Your task to perform on an android device: allow notifications from all sites in the chrome app Image 0: 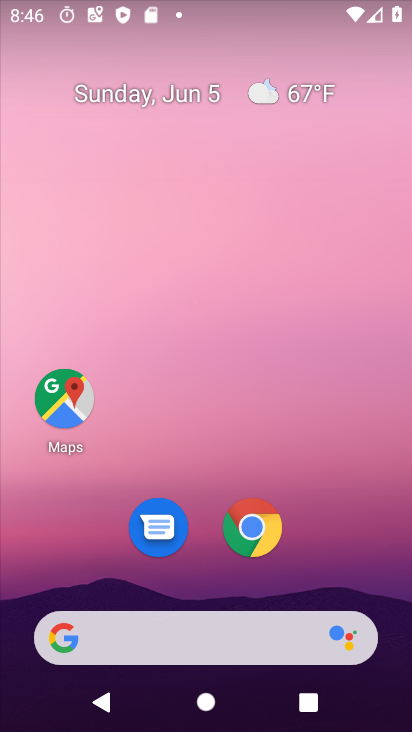
Step 0: click (258, 528)
Your task to perform on an android device: allow notifications from all sites in the chrome app Image 1: 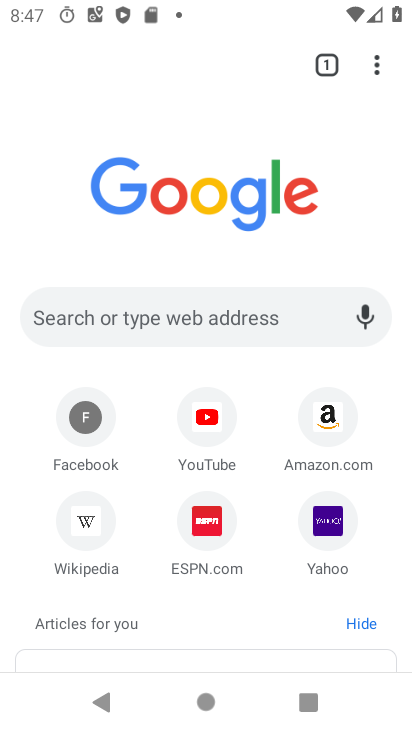
Step 1: click (378, 71)
Your task to perform on an android device: allow notifications from all sites in the chrome app Image 2: 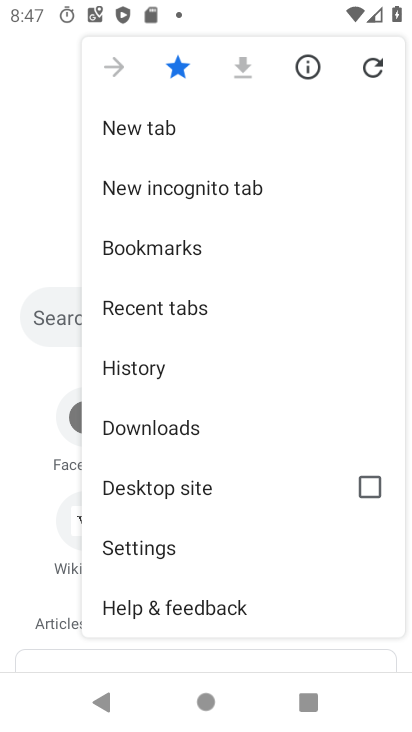
Step 2: click (144, 546)
Your task to perform on an android device: allow notifications from all sites in the chrome app Image 3: 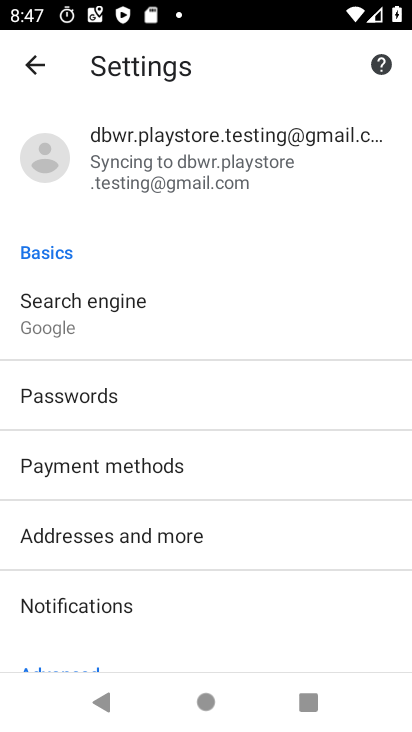
Step 3: drag from (201, 652) to (194, 286)
Your task to perform on an android device: allow notifications from all sites in the chrome app Image 4: 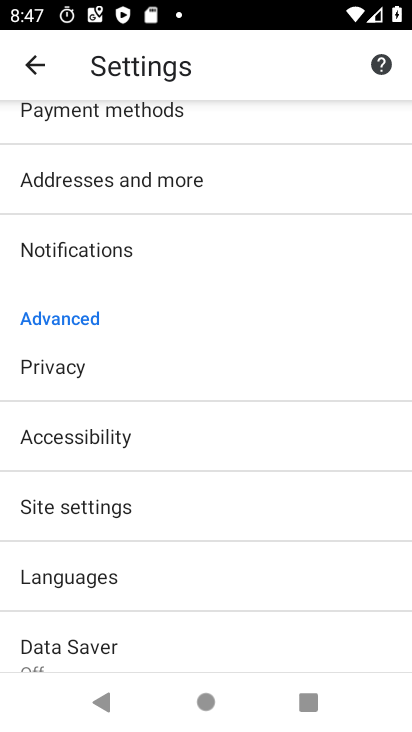
Step 4: click (100, 503)
Your task to perform on an android device: allow notifications from all sites in the chrome app Image 5: 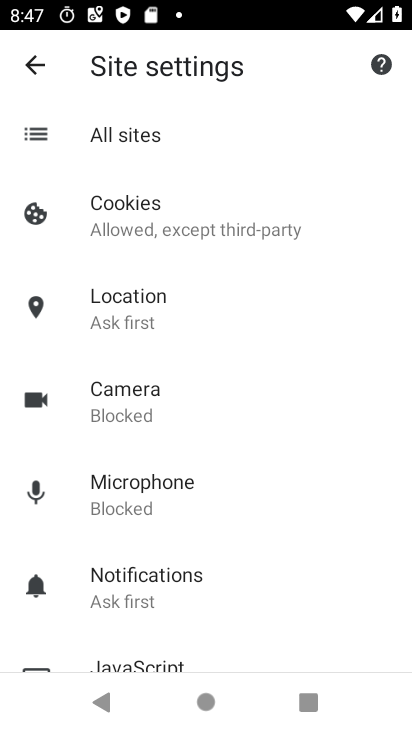
Step 5: click (151, 573)
Your task to perform on an android device: allow notifications from all sites in the chrome app Image 6: 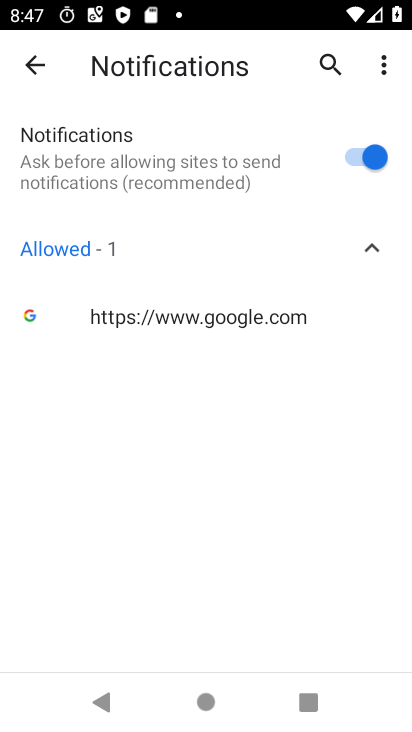
Step 6: task complete